Your task to perform on an android device: Go to eBay Image 0: 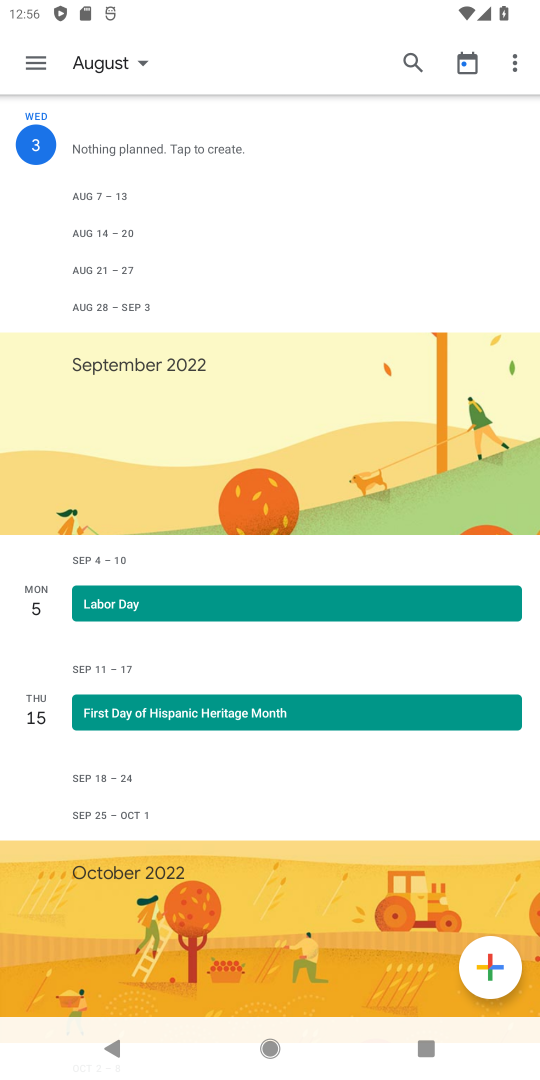
Step 0: press home button
Your task to perform on an android device: Go to eBay Image 1: 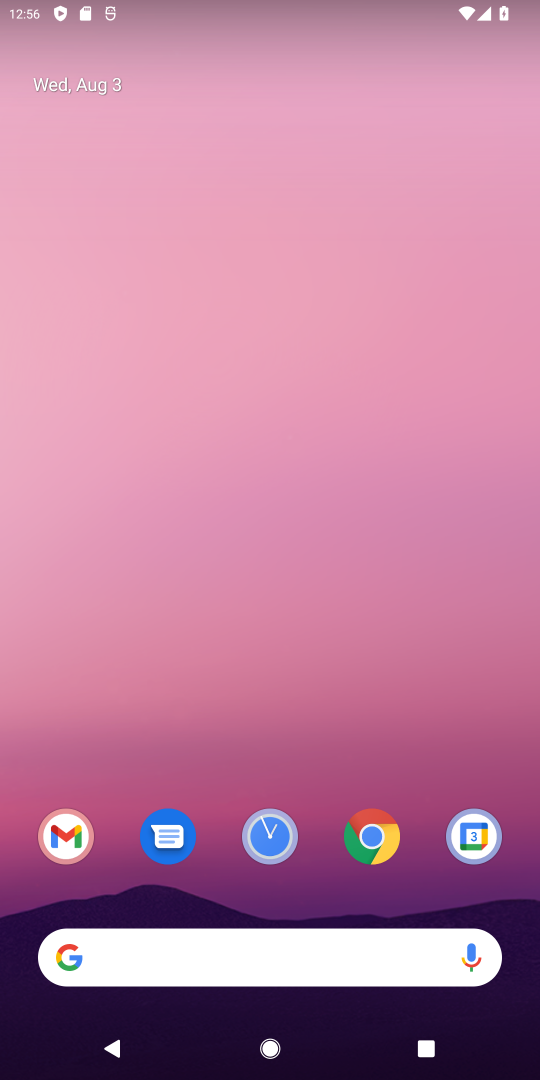
Step 1: drag from (276, 912) to (347, 256)
Your task to perform on an android device: Go to eBay Image 2: 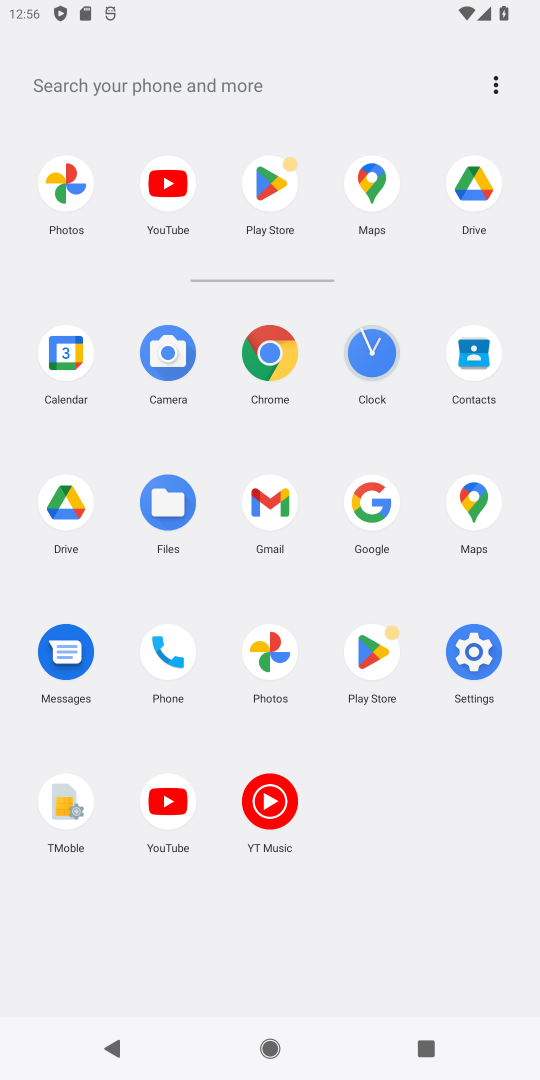
Step 2: click (144, 82)
Your task to perform on an android device: Go to eBay Image 3: 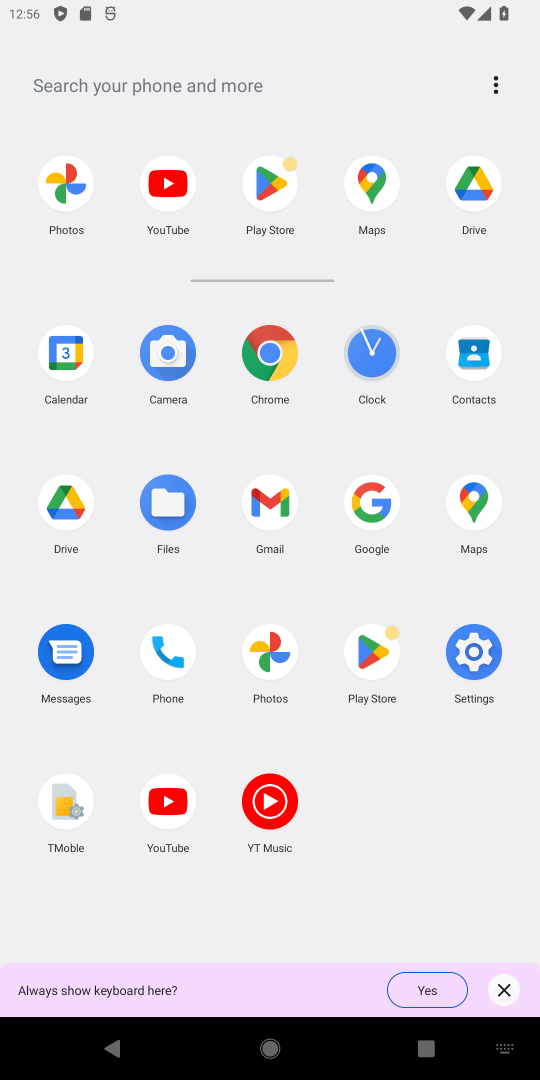
Step 3: type "eBay"
Your task to perform on an android device: Go to eBay Image 4: 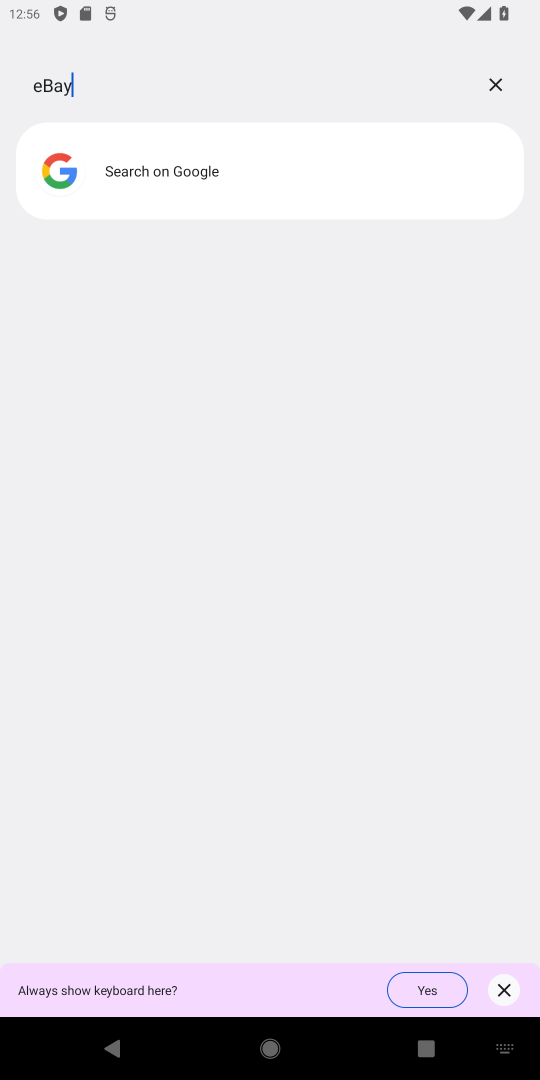
Step 4: type ""
Your task to perform on an android device: Go to eBay Image 5: 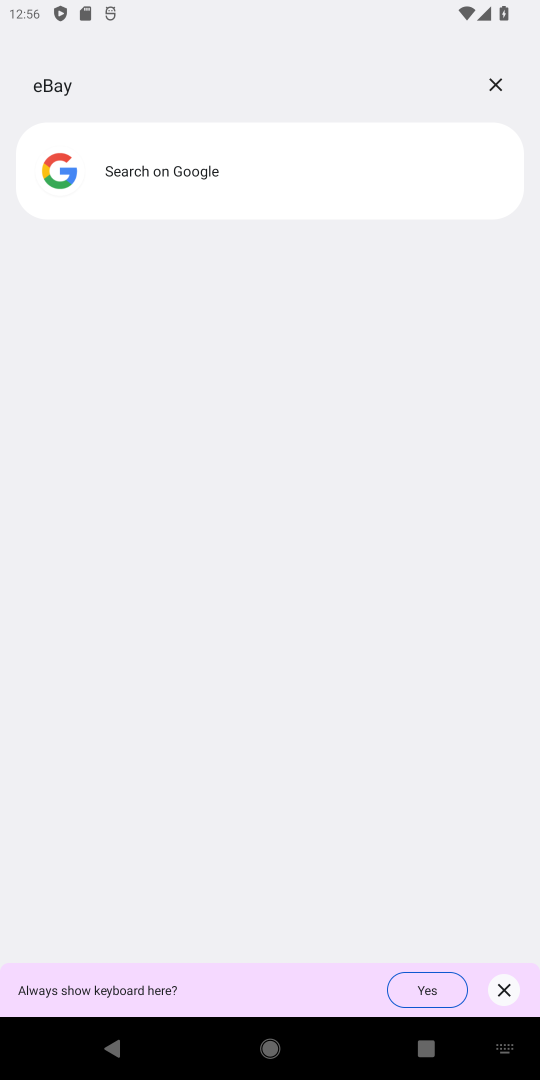
Step 5: click (140, 171)
Your task to perform on an android device: Go to eBay Image 6: 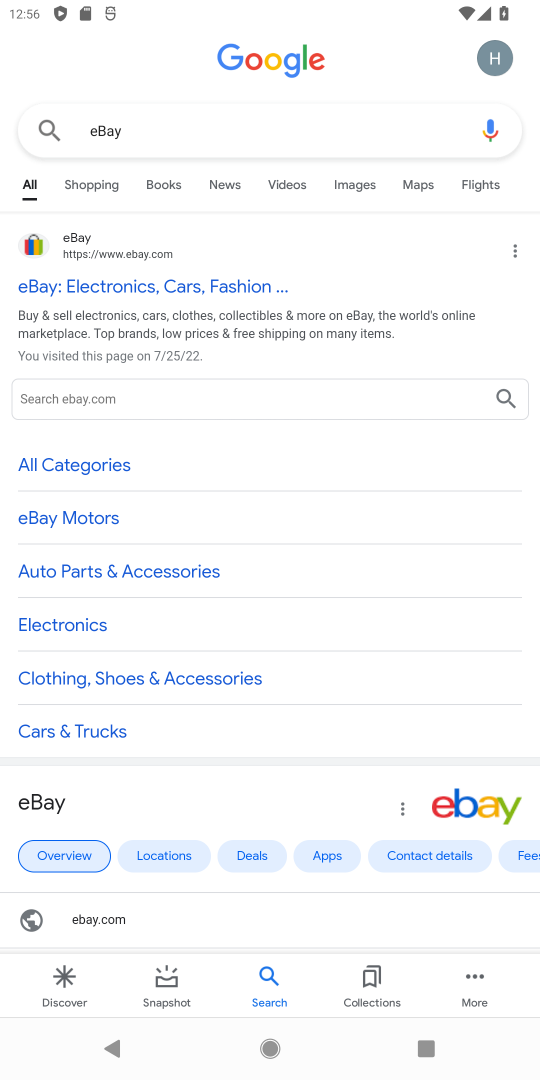
Step 6: click (144, 285)
Your task to perform on an android device: Go to eBay Image 7: 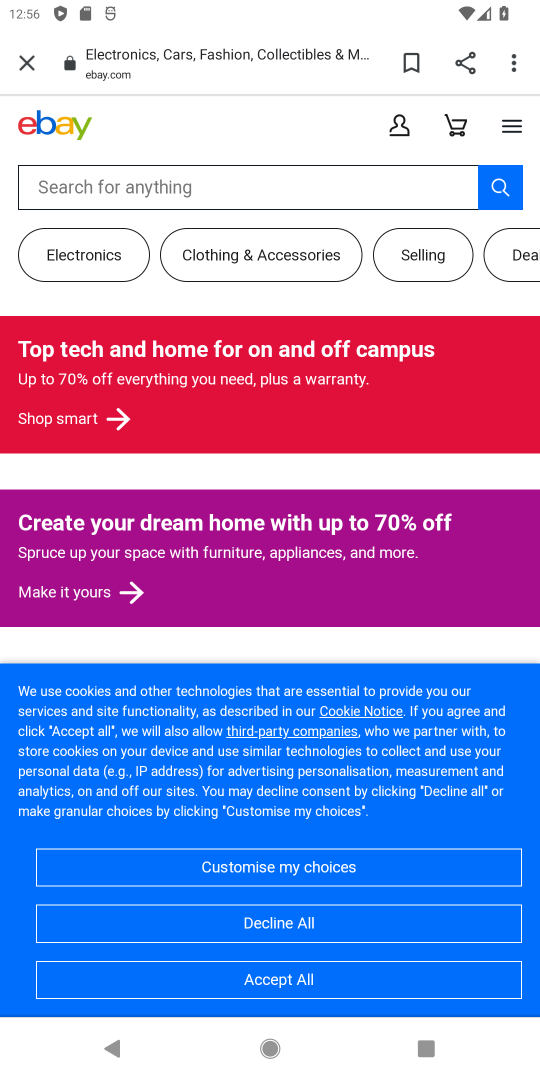
Step 7: task complete